Your task to perform on an android device: Go to Amazon Image 0: 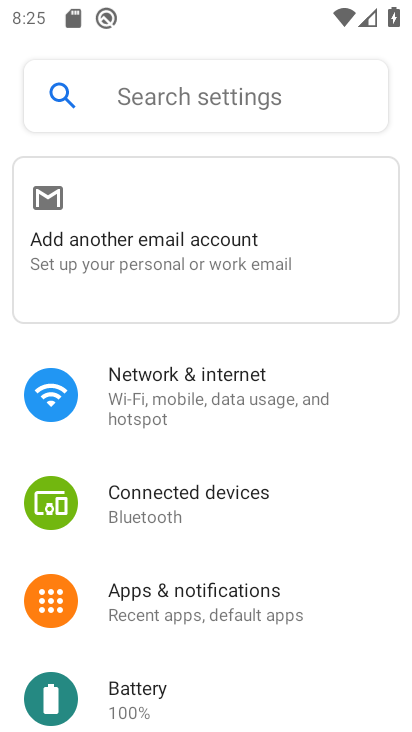
Step 0: press home button
Your task to perform on an android device: Go to Amazon Image 1: 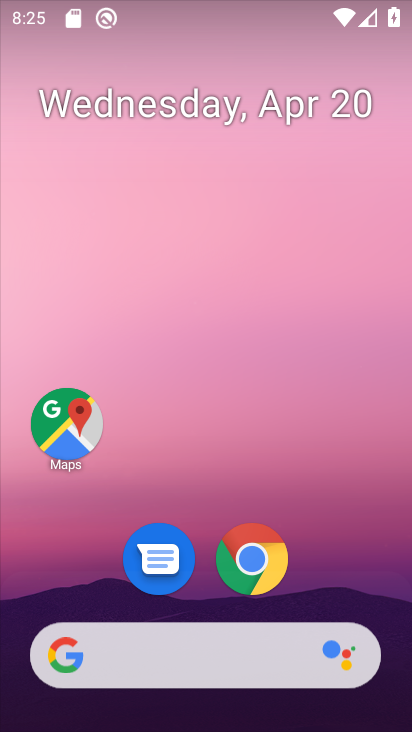
Step 1: click (256, 559)
Your task to perform on an android device: Go to Amazon Image 2: 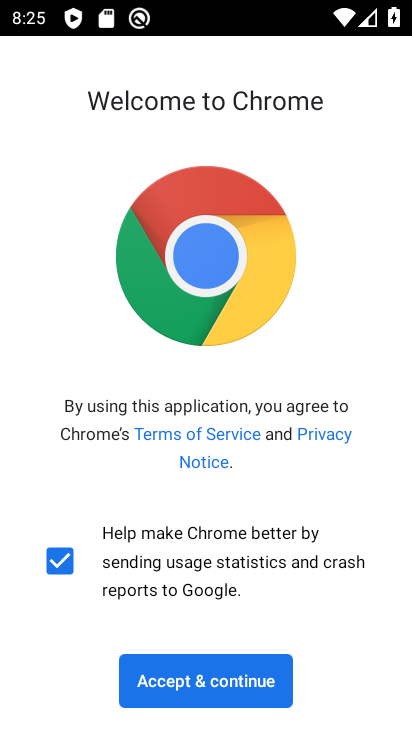
Step 2: click (199, 692)
Your task to perform on an android device: Go to Amazon Image 3: 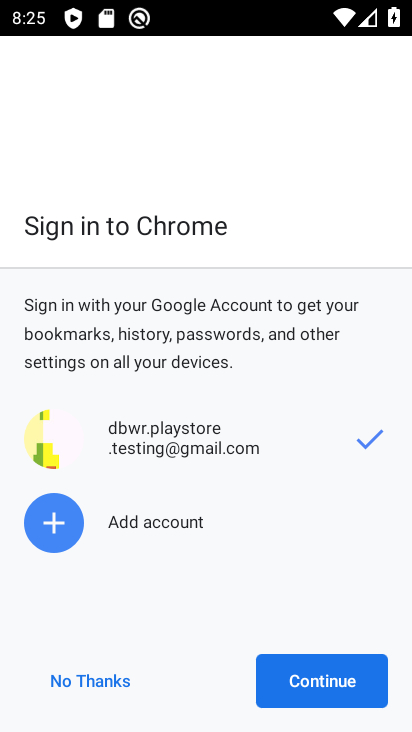
Step 3: click (315, 669)
Your task to perform on an android device: Go to Amazon Image 4: 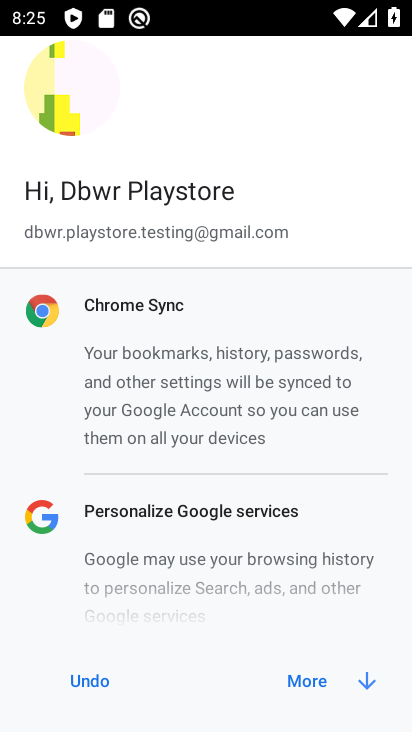
Step 4: click (313, 674)
Your task to perform on an android device: Go to Amazon Image 5: 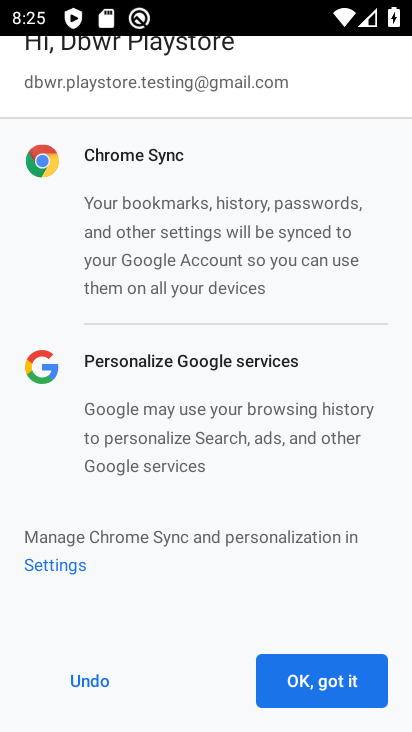
Step 5: click (313, 674)
Your task to perform on an android device: Go to Amazon Image 6: 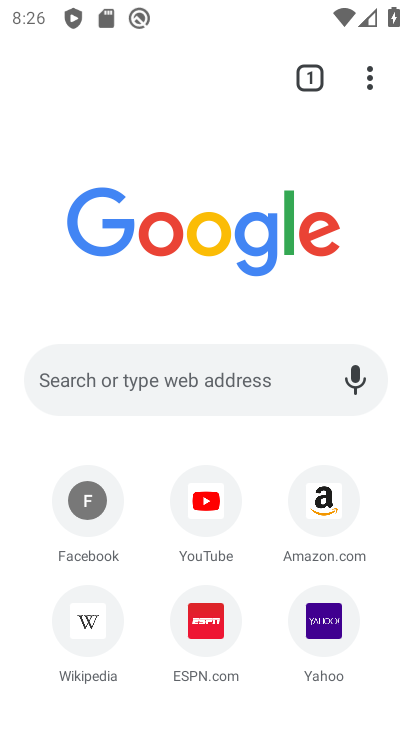
Step 6: click (326, 483)
Your task to perform on an android device: Go to Amazon Image 7: 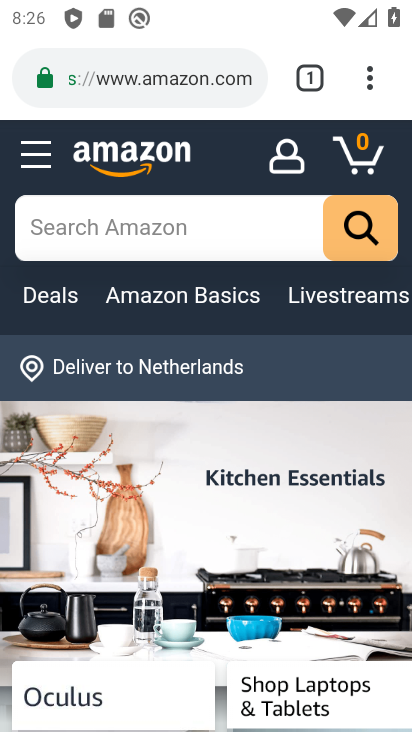
Step 7: task complete